Your task to perform on an android device: Open Chrome and go to settings Image 0: 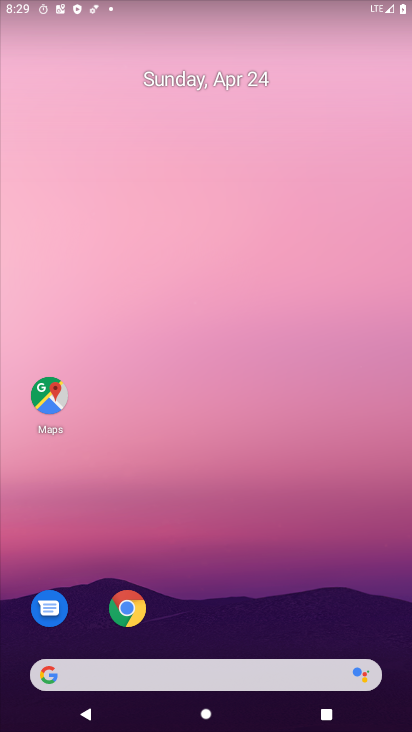
Step 0: click (137, 606)
Your task to perform on an android device: Open Chrome and go to settings Image 1: 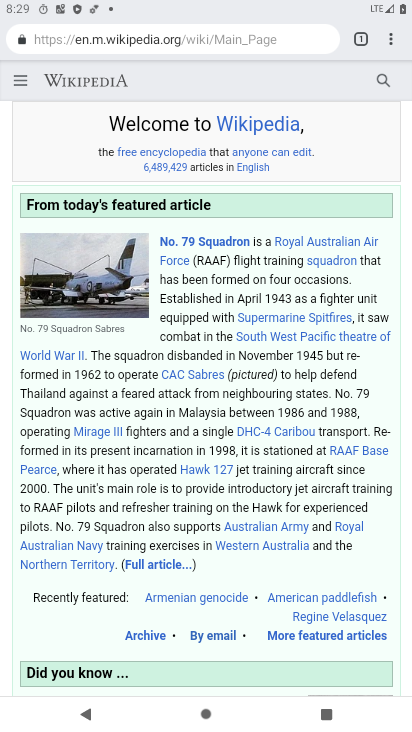
Step 1: click (391, 32)
Your task to perform on an android device: Open Chrome and go to settings Image 2: 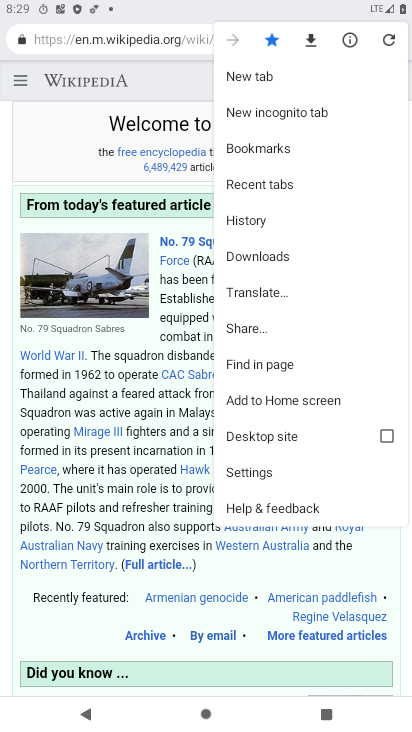
Step 2: click (266, 470)
Your task to perform on an android device: Open Chrome and go to settings Image 3: 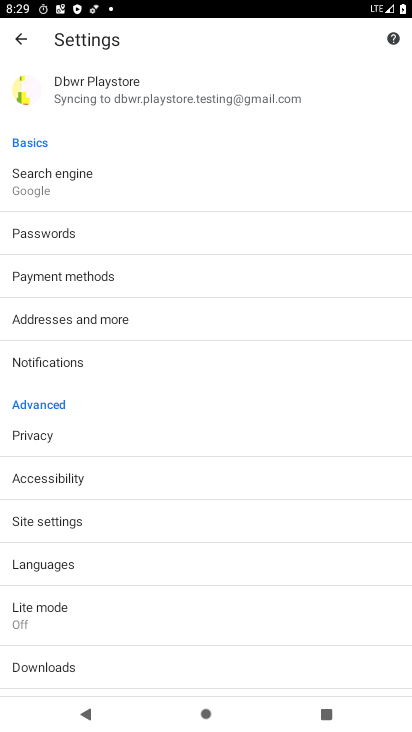
Step 3: task complete